Your task to perform on an android device: delete browsing data in the chrome app Image 0: 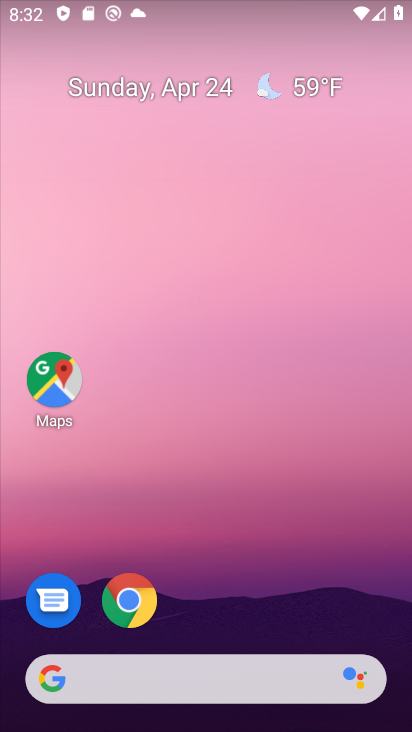
Step 0: click (131, 600)
Your task to perform on an android device: delete browsing data in the chrome app Image 1: 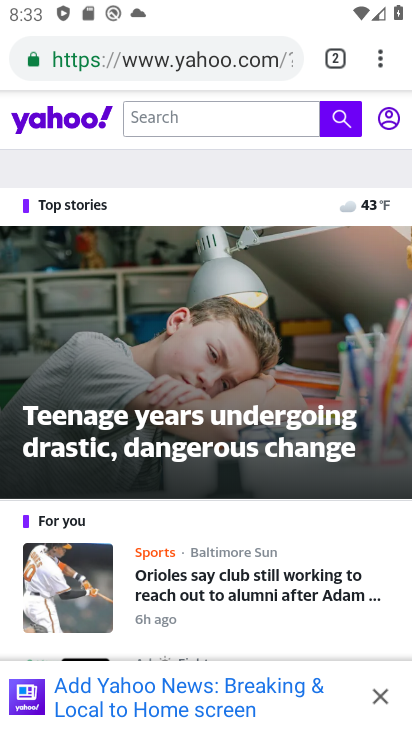
Step 1: drag from (380, 57) to (228, 601)
Your task to perform on an android device: delete browsing data in the chrome app Image 2: 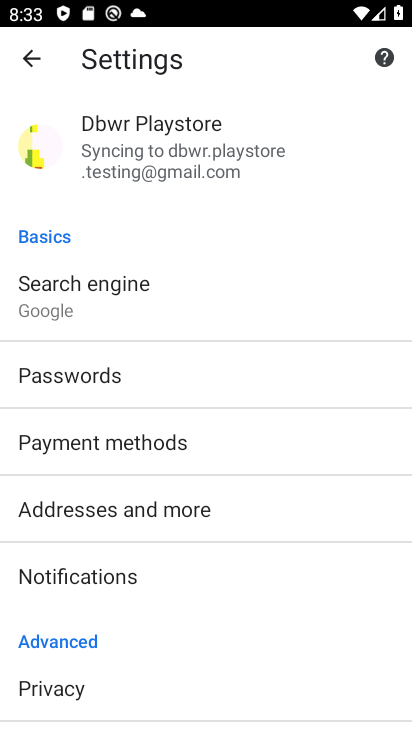
Step 2: drag from (170, 670) to (182, 419)
Your task to perform on an android device: delete browsing data in the chrome app Image 3: 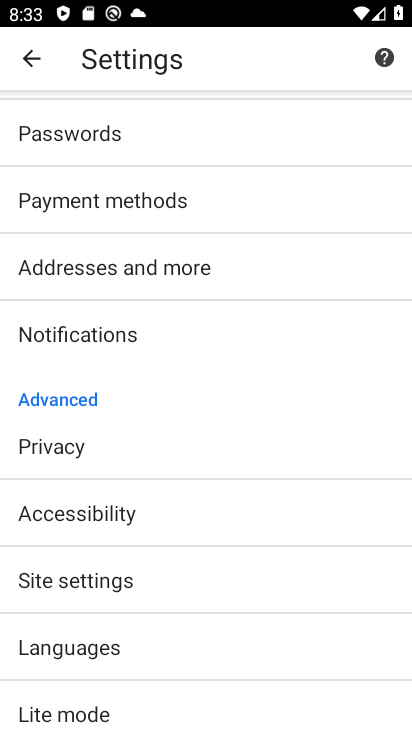
Step 3: click (67, 445)
Your task to perform on an android device: delete browsing data in the chrome app Image 4: 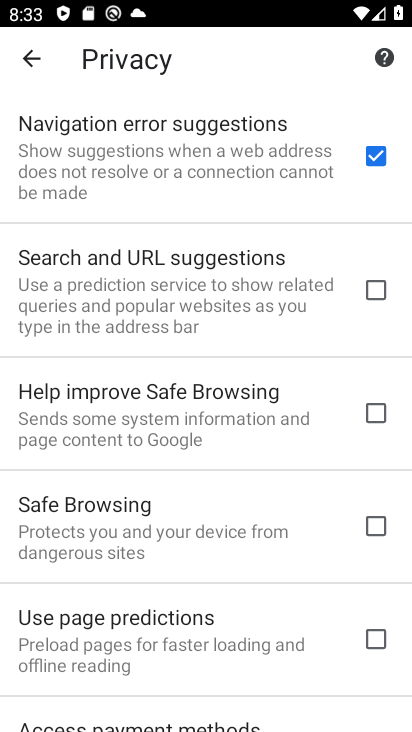
Step 4: drag from (184, 686) to (183, 214)
Your task to perform on an android device: delete browsing data in the chrome app Image 5: 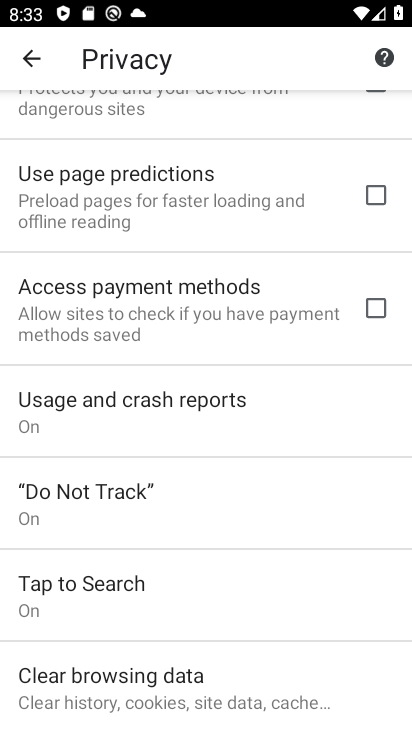
Step 5: drag from (205, 689) to (188, 286)
Your task to perform on an android device: delete browsing data in the chrome app Image 6: 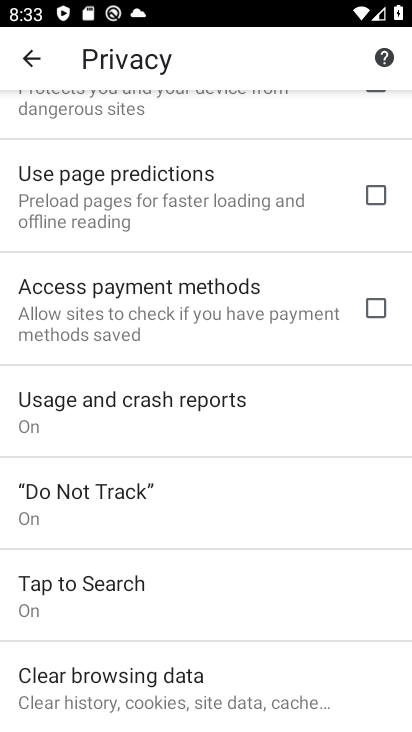
Step 6: click (164, 680)
Your task to perform on an android device: delete browsing data in the chrome app Image 7: 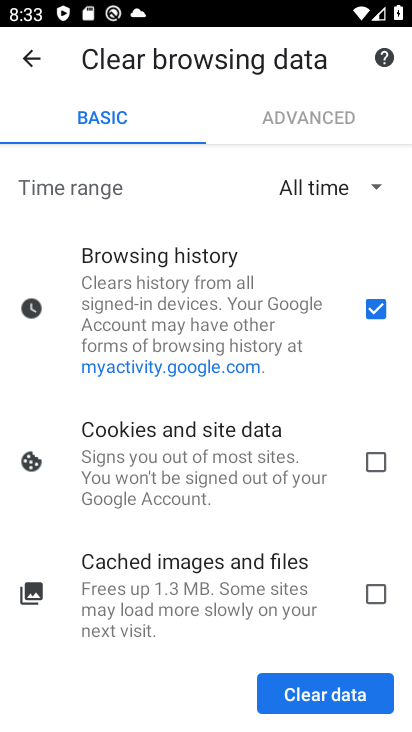
Step 7: click (330, 691)
Your task to perform on an android device: delete browsing data in the chrome app Image 8: 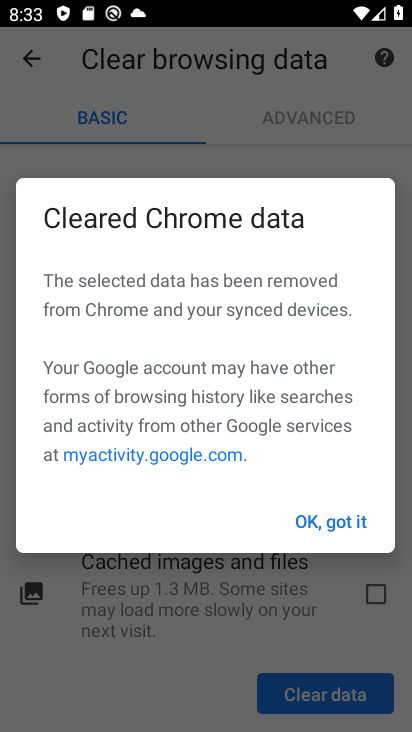
Step 8: click (319, 520)
Your task to perform on an android device: delete browsing data in the chrome app Image 9: 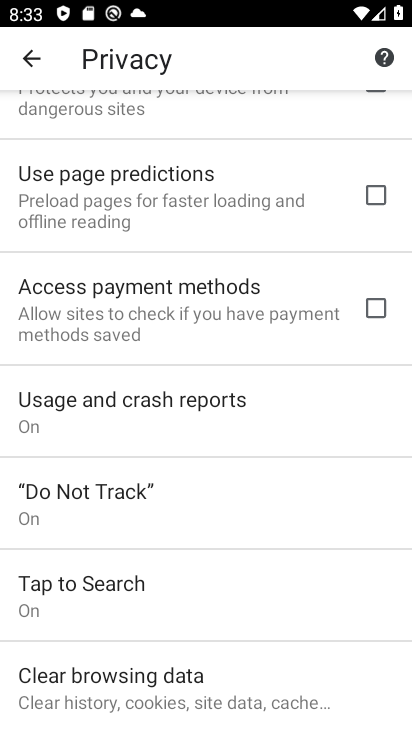
Step 9: task complete